Your task to perform on an android device: Open sound settings Image 0: 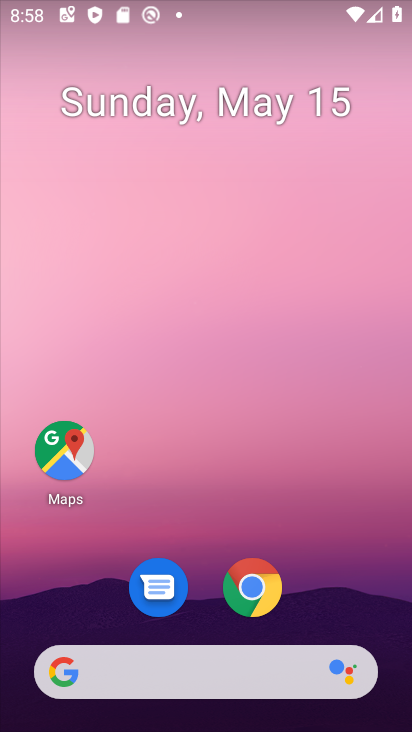
Step 0: drag from (369, 592) to (254, 129)
Your task to perform on an android device: Open sound settings Image 1: 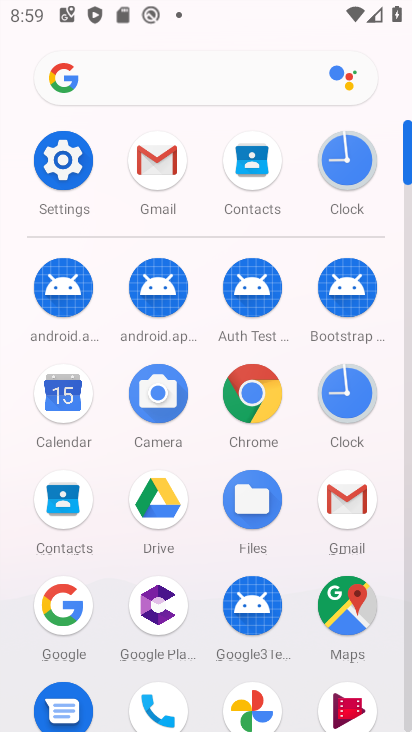
Step 1: click (68, 184)
Your task to perform on an android device: Open sound settings Image 2: 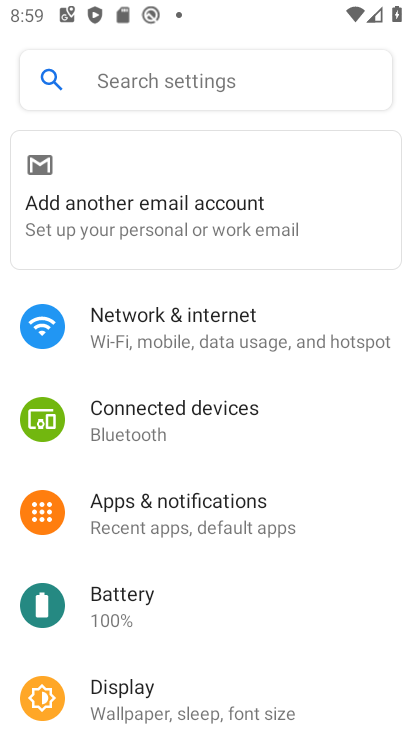
Step 2: drag from (140, 612) to (160, 225)
Your task to perform on an android device: Open sound settings Image 3: 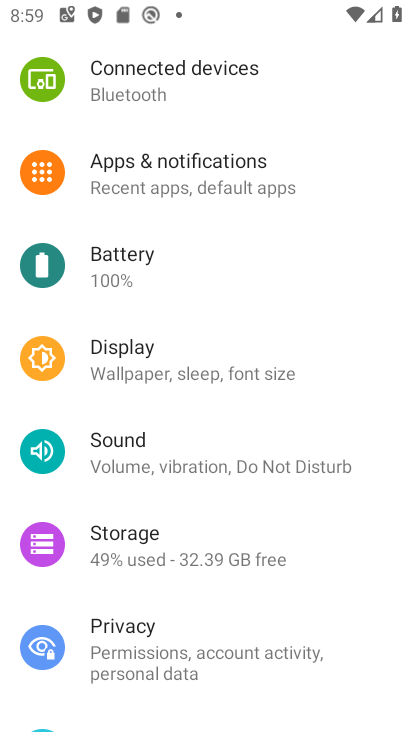
Step 3: click (179, 497)
Your task to perform on an android device: Open sound settings Image 4: 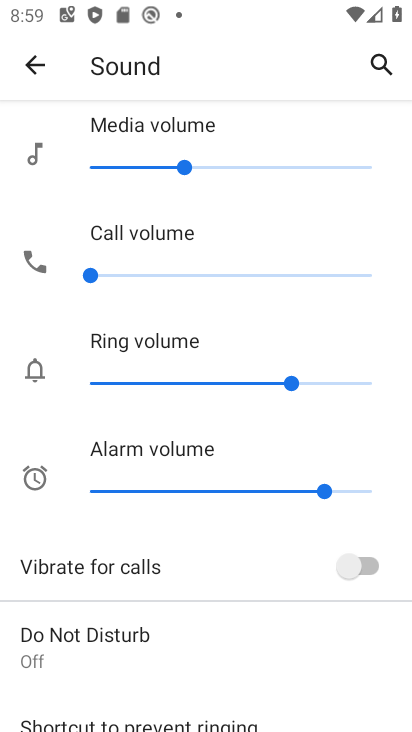
Step 4: task complete